Your task to perform on an android device: turn off notifications in google photos Image 0: 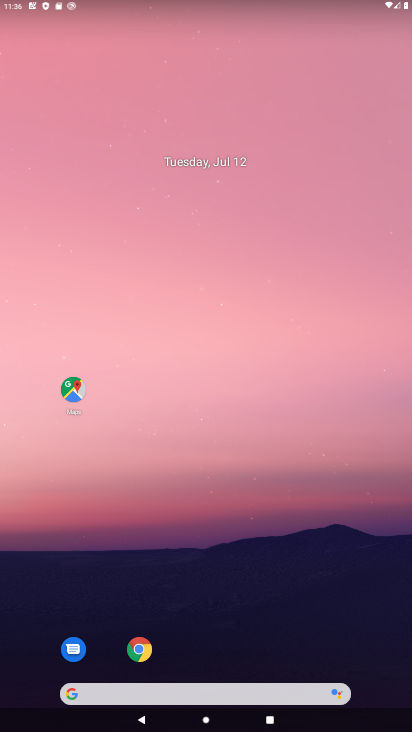
Step 0: drag from (236, 637) to (269, 30)
Your task to perform on an android device: turn off notifications in google photos Image 1: 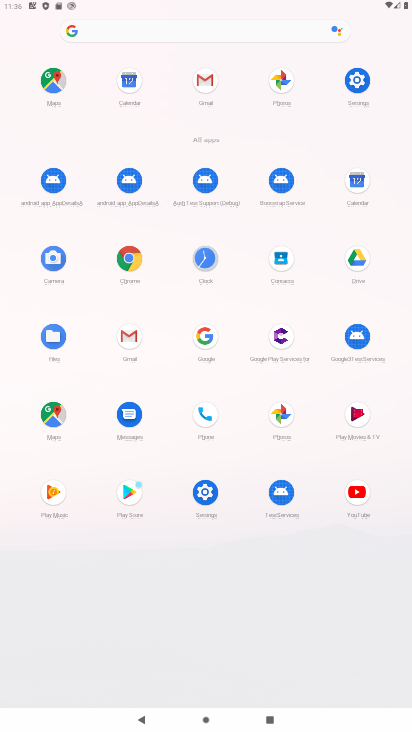
Step 1: click (275, 412)
Your task to perform on an android device: turn off notifications in google photos Image 2: 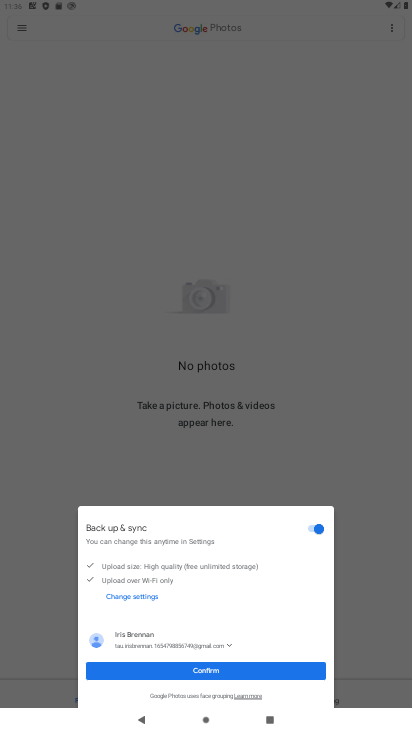
Step 2: click (187, 670)
Your task to perform on an android device: turn off notifications in google photos Image 3: 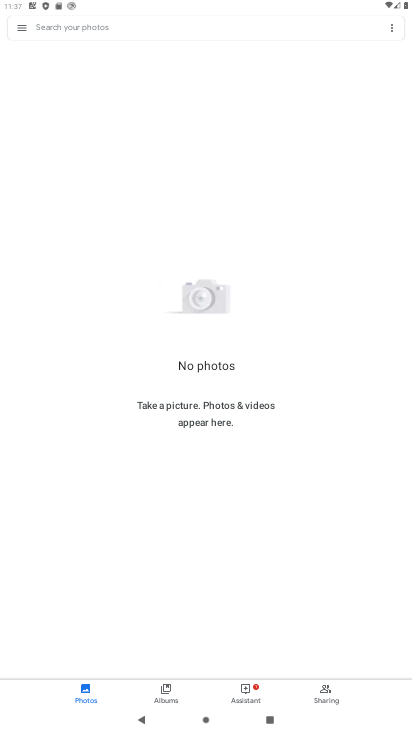
Step 3: click (20, 24)
Your task to perform on an android device: turn off notifications in google photos Image 4: 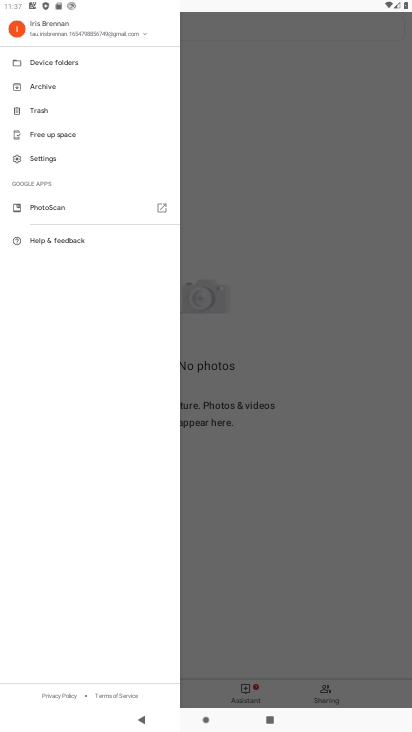
Step 4: click (27, 164)
Your task to perform on an android device: turn off notifications in google photos Image 5: 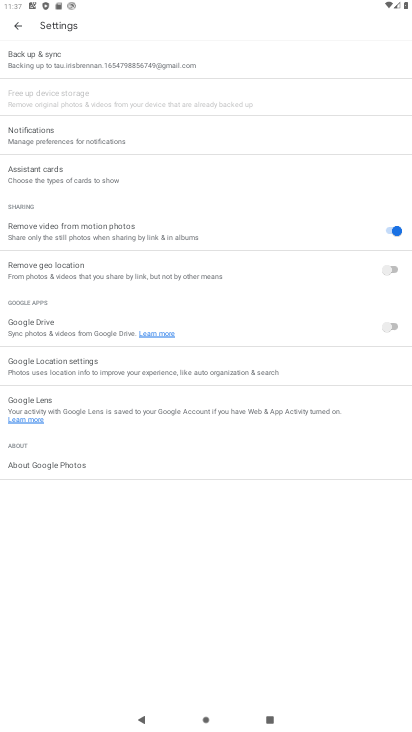
Step 5: click (97, 141)
Your task to perform on an android device: turn off notifications in google photos Image 6: 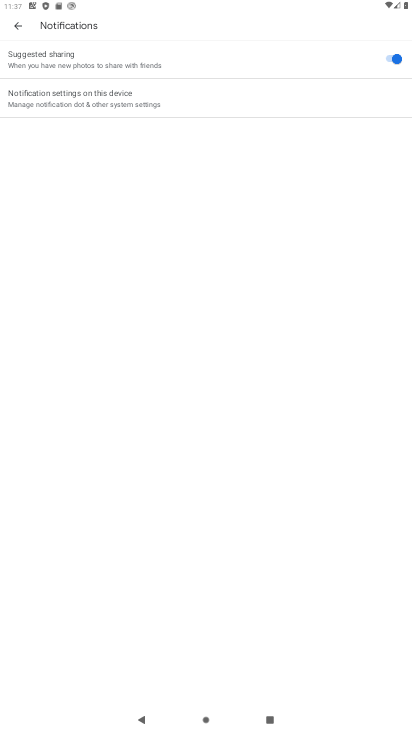
Step 6: click (83, 94)
Your task to perform on an android device: turn off notifications in google photos Image 7: 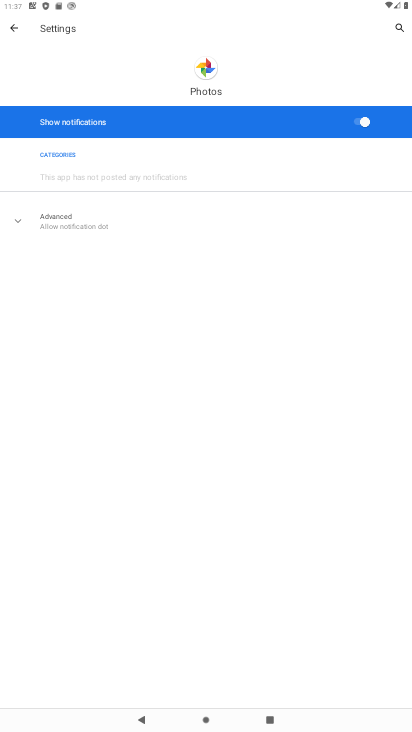
Step 7: click (354, 121)
Your task to perform on an android device: turn off notifications in google photos Image 8: 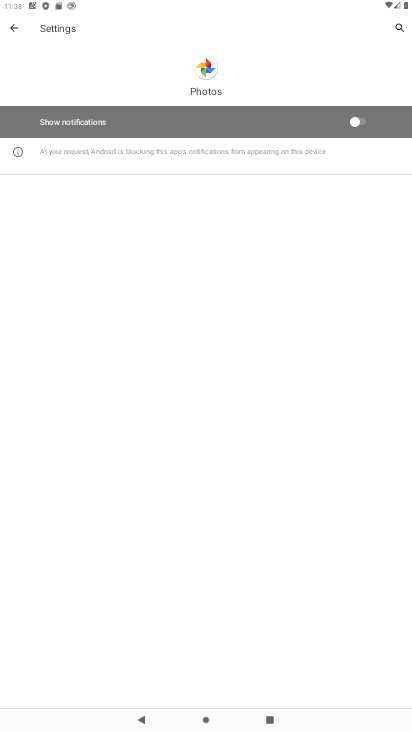
Step 8: task complete